Your task to perform on an android device: check battery use Image 0: 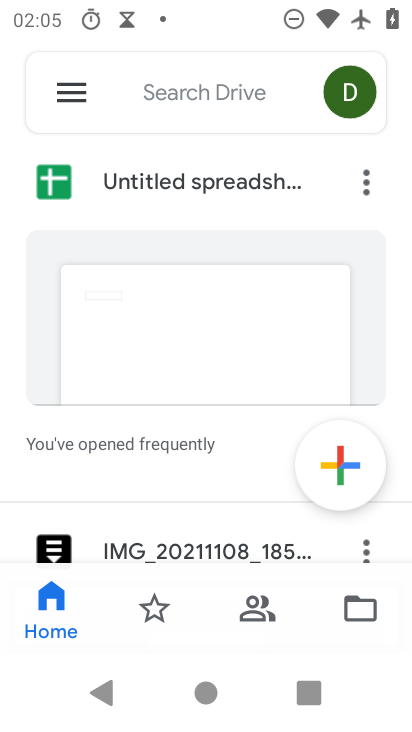
Step 0: press home button
Your task to perform on an android device: check battery use Image 1: 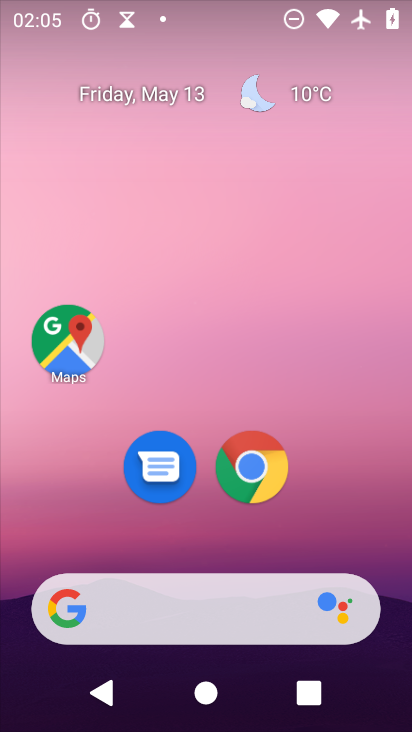
Step 1: drag from (347, 395) to (261, 6)
Your task to perform on an android device: check battery use Image 2: 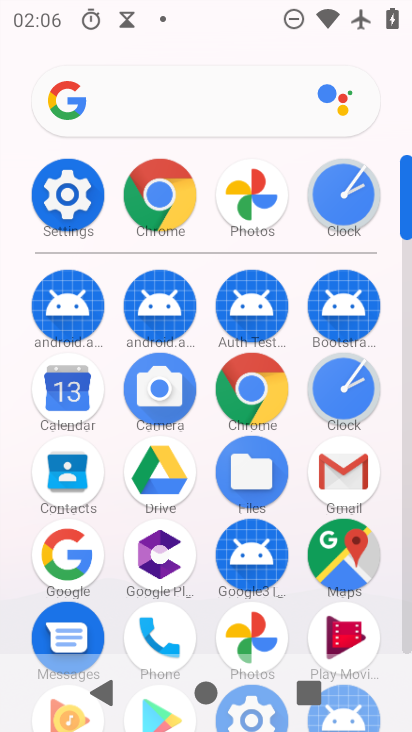
Step 2: click (78, 197)
Your task to perform on an android device: check battery use Image 3: 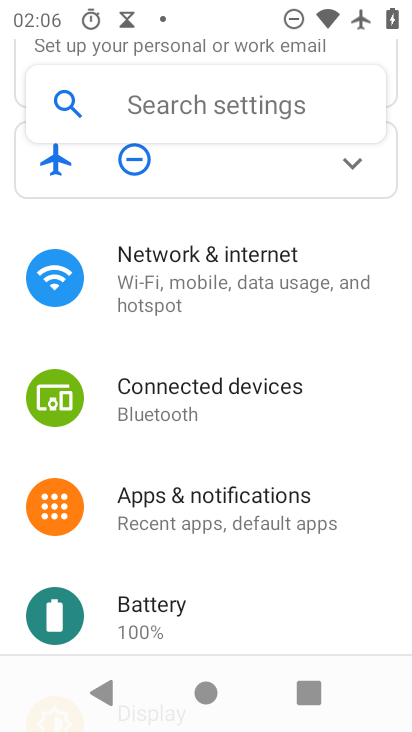
Step 3: click (236, 599)
Your task to perform on an android device: check battery use Image 4: 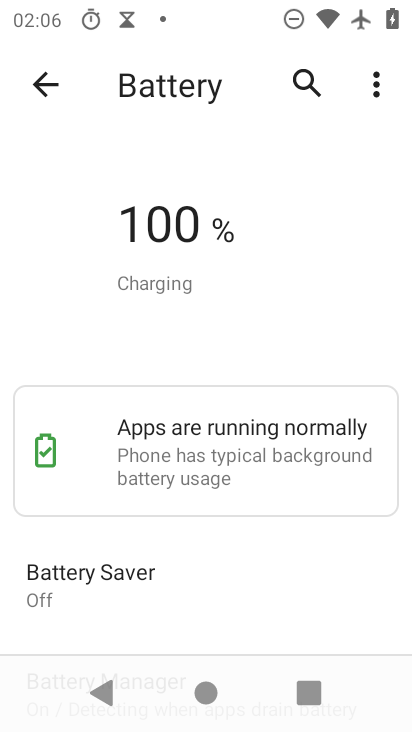
Step 4: click (384, 83)
Your task to perform on an android device: check battery use Image 5: 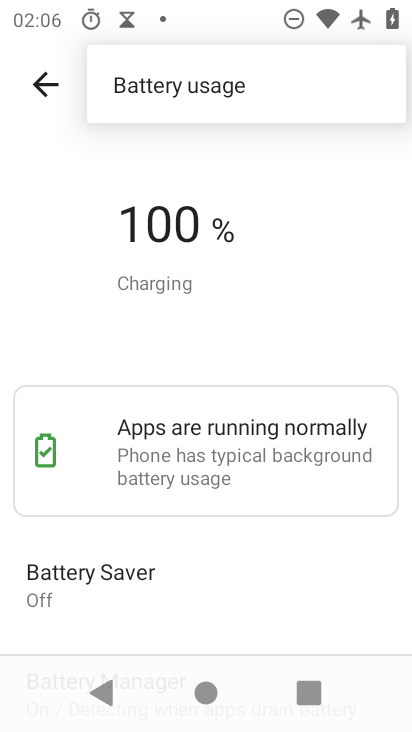
Step 5: click (300, 88)
Your task to perform on an android device: check battery use Image 6: 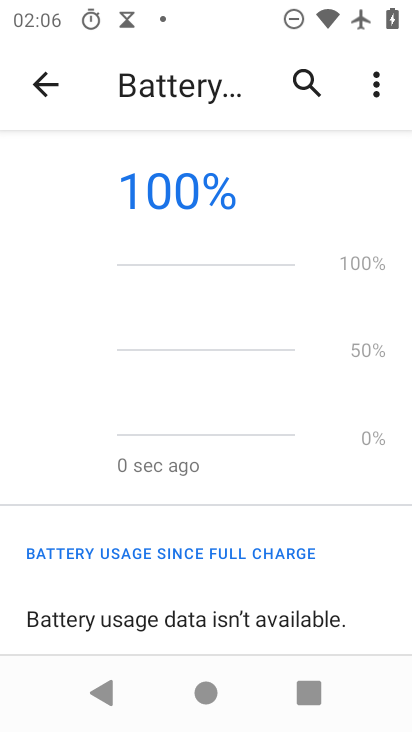
Step 6: task complete